Your task to perform on an android device: open sync settings in chrome Image 0: 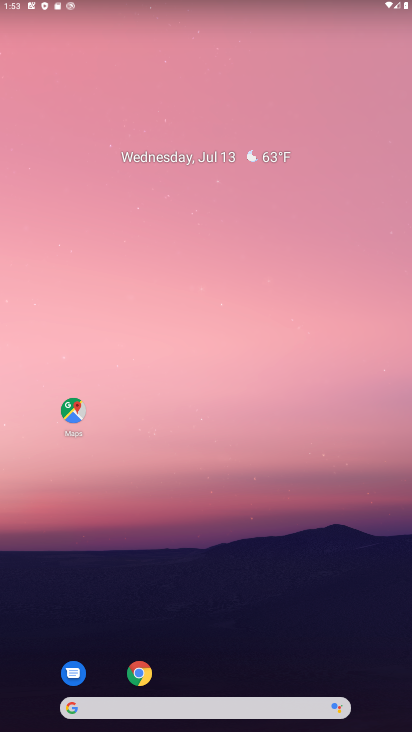
Step 0: drag from (242, 625) to (227, 212)
Your task to perform on an android device: open sync settings in chrome Image 1: 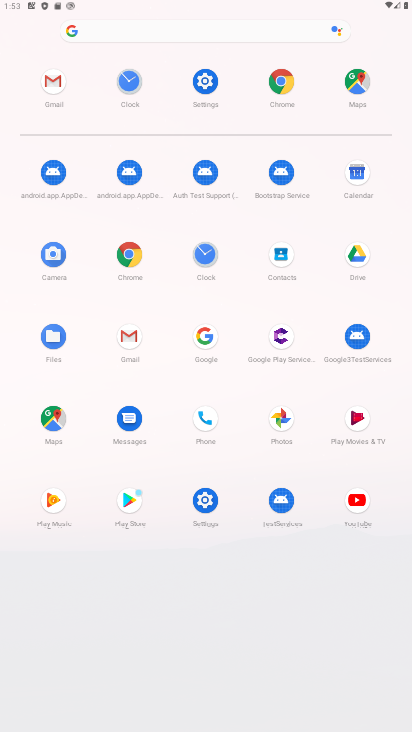
Step 1: click (283, 79)
Your task to perform on an android device: open sync settings in chrome Image 2: 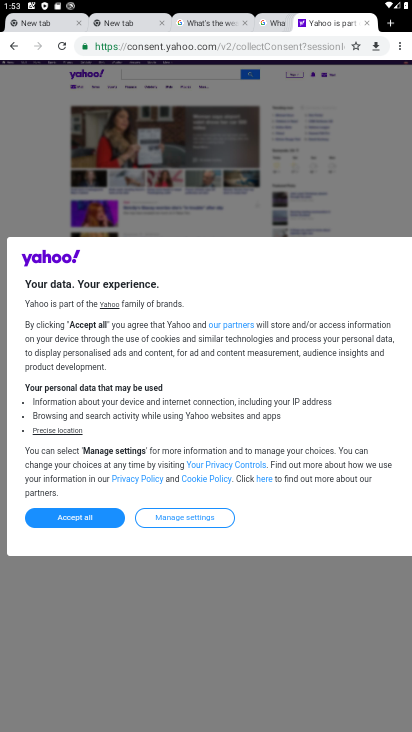
Step 2: click (402, 41)
Your task to perform on an android device: open sync settings in chrome Image 3: 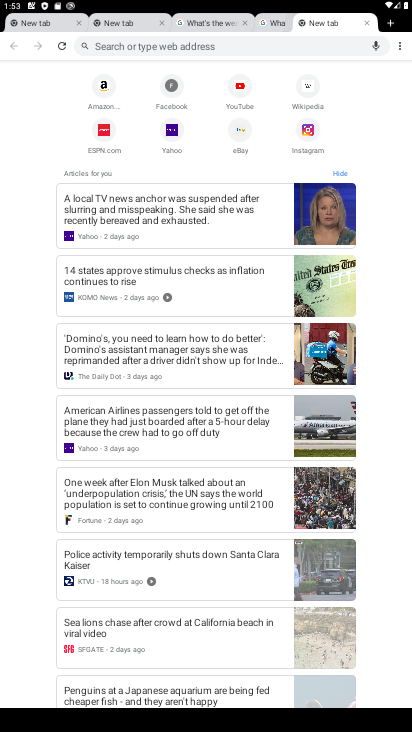
Step 3: click (405, 43)
Your task to perform on an android device: open sync settings in chrome Image 4: 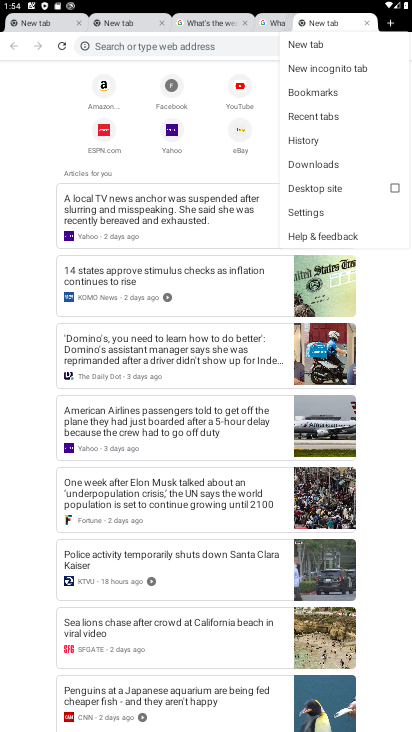
Step 4: click (301, 207)
Your task to perform on an android device: open sync settings in chrome Image 5: 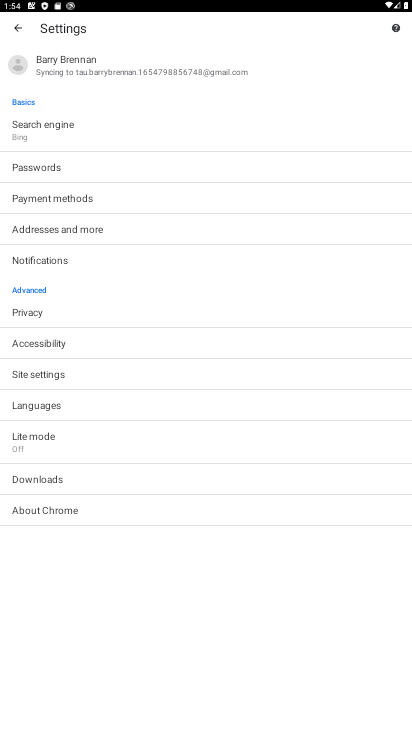
Step 5: click (93, 63)
Your task to perform on an android device: open sync settings in chrome Image 6: 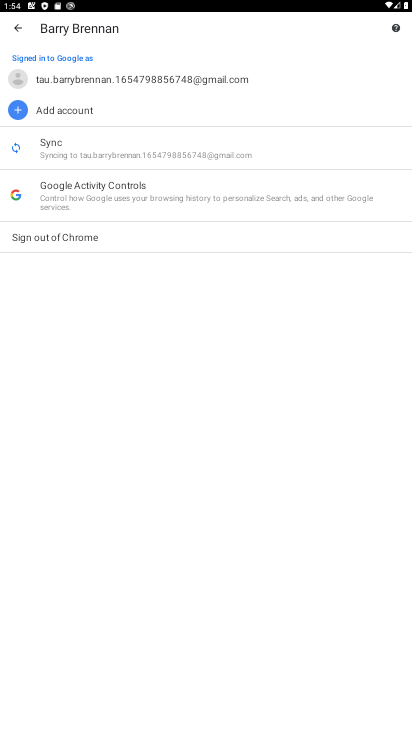
Step 6: click (93, 140)
Your task to perform on an android device: open sync settings in chrome Image 7: 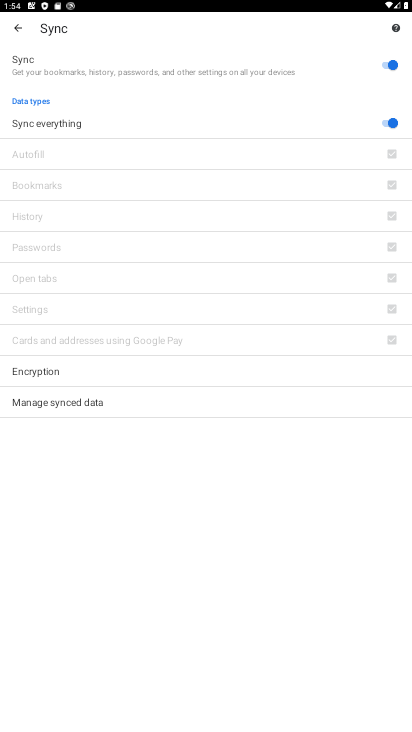
Step 7: task complete